Your task to perform on an android device: open app "Truecaller" (install if not already installed) and enter user name: "coauthor@gmail.com" and password: "quadrangle" Image 0: 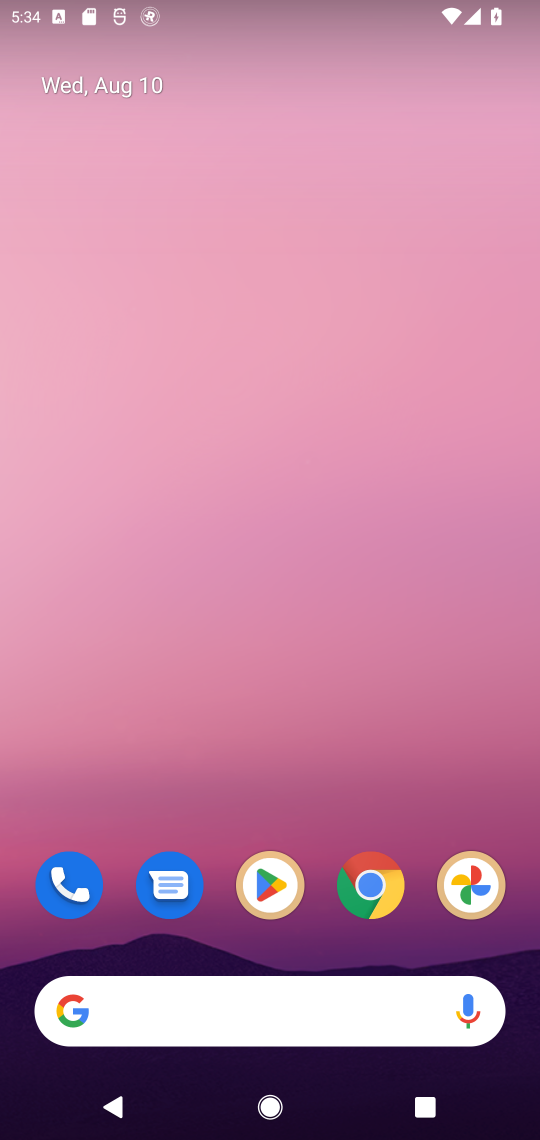
Step 0: click (247, 901)
Your task to perform on an android device: open app "Truecaller" (install if not already installed) and enter user name: "coauthor@gmail.com" and password: "quadrangle" Image 1: 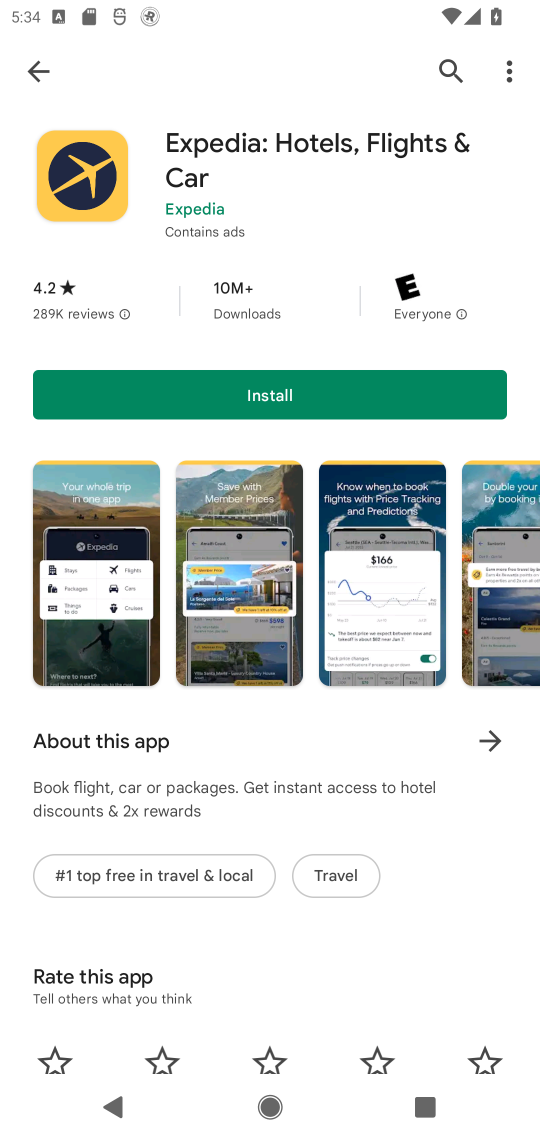
Step 1: click (441, 67)
Your task to perform on an android device: open app "Truecaller" (install if not already installed) and enter user name: "coauthor@gmail.com" and password: "quadrangle" Image 2: 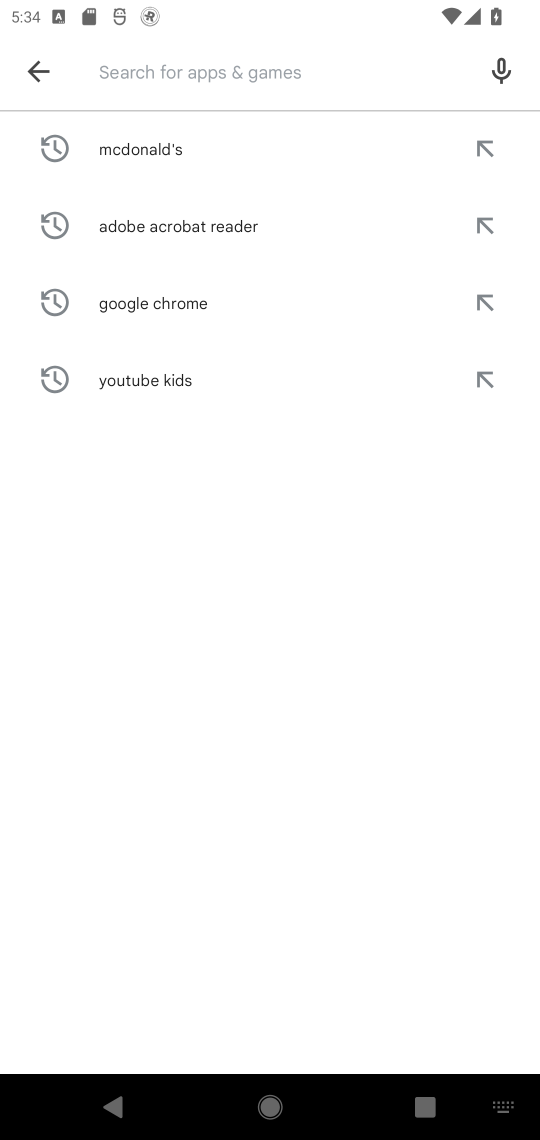
Step 2: click (190, 72)
Your task to perform on an android device: open app "Truecaller" (install if not already installed) and enter user name: "coauthor@gmail.com" and password: "quadrangle" Image 3: 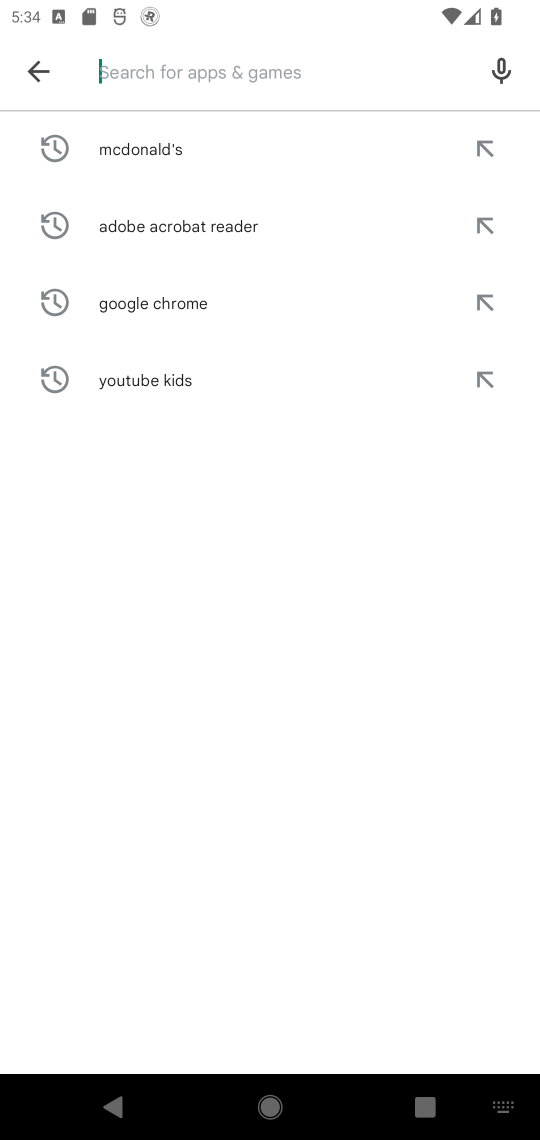
Step 3: type "Truecaller"
Your task to perform on an android device: open app "Truecaller" (install if not already installed) and enter user name: "coauthor@gmail.com" and password: "quadrangle" Image 4: 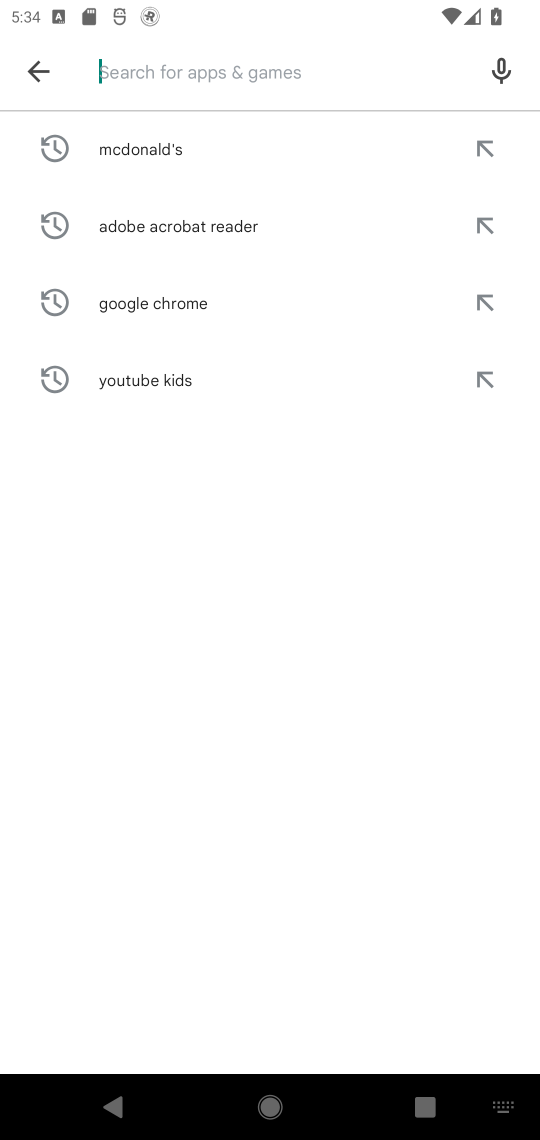
Step 4: click (306, 657)
Your task to perform on an android device: open app "Truecaller" (install if not already installed) and enter user name: "coauthor@gmail.com" and password: "quadrangle" Image 5: 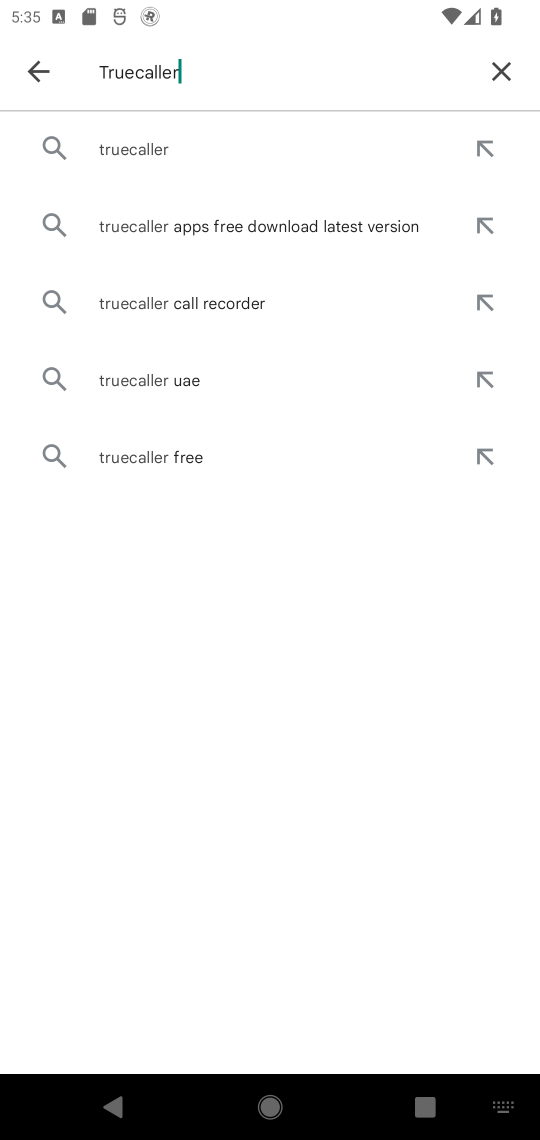
Step 5: click (176, 148)
Your task to perform on an android device: open app "Truecaller" (install if not already installed) and enter user name: "coauthor@gmail.com" and password: "quadrangle" Image 6: 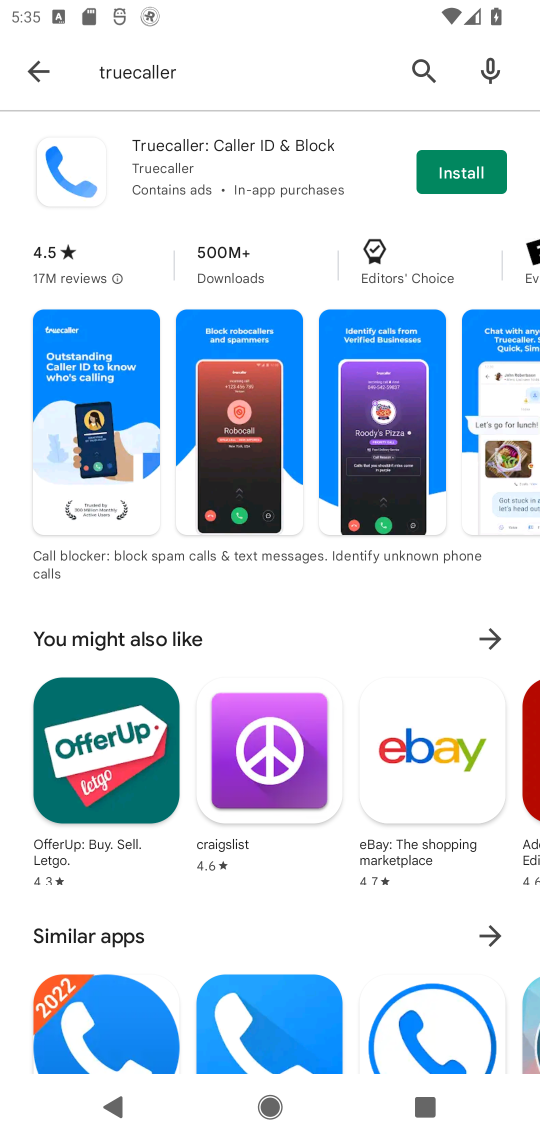
Step 6: click (471, 178)
Your task to perform on an android device: open app "Truecaller" (install if not already installed) and enter user name: "coauthor@gmail.com" and password: "quadrangle" Image 7: 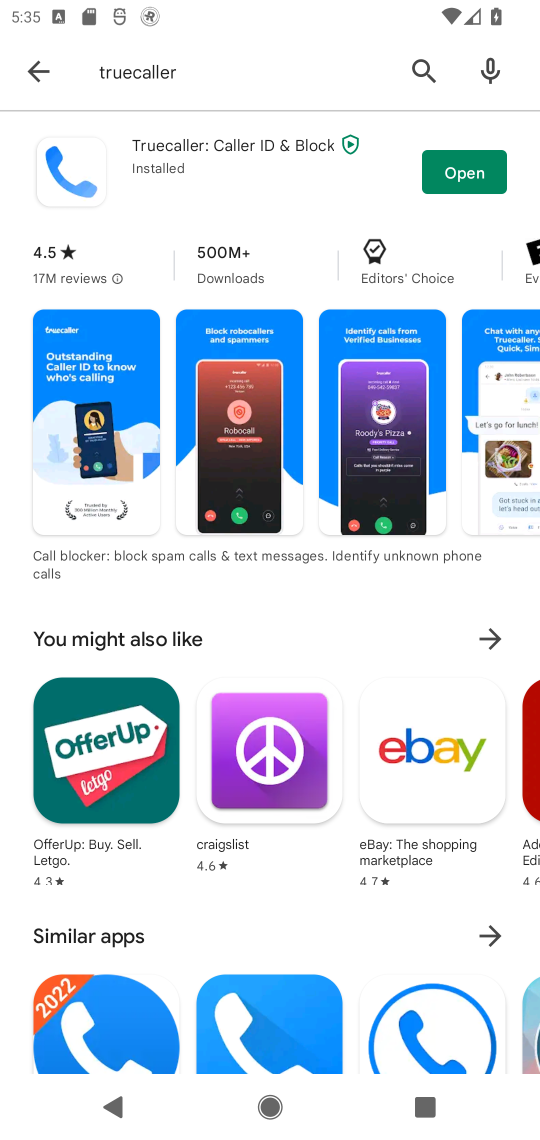
Step 7: click (458, 183)
Your task to perform on an android device: open app "Truecaller" (install if not already installed) and enter user name: "coauthor@gmail.com" and password: "quadrangle" Image 8: 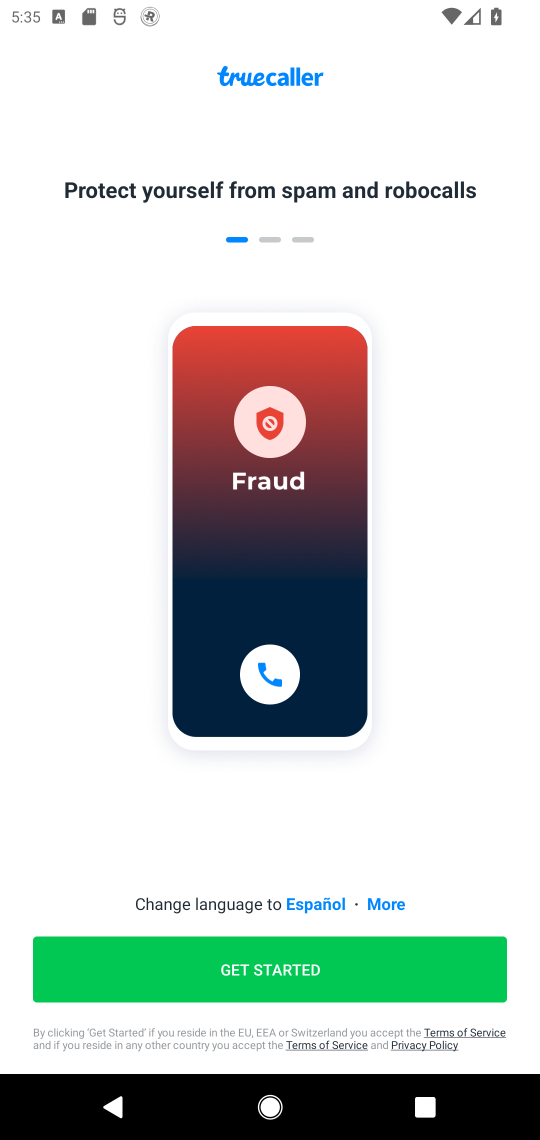
Step 8: click (313, 966)
Your task to perform on an android device: open app "Truecaller" (install if not already installed) and enter user name: "coauthor@gmail.com" and password: "quadrangle" Image 9: 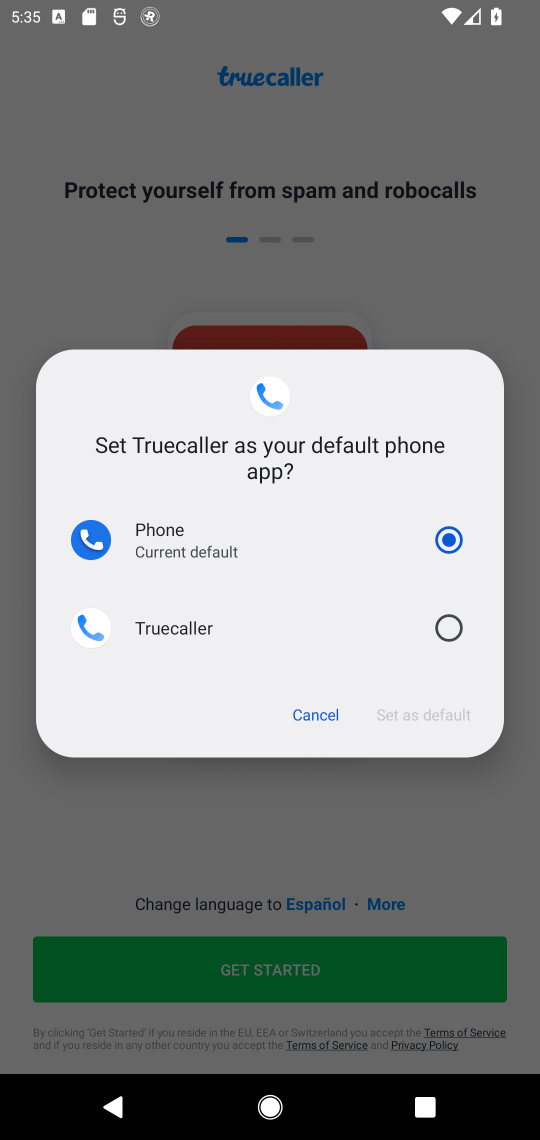
Step 9: click (313, 967)
Your task to perform on an android device: open app "Truecaller" (install if not already installed) and enter user name: "coauthor@gmail.com" and password: "quadrangle" Image 10: 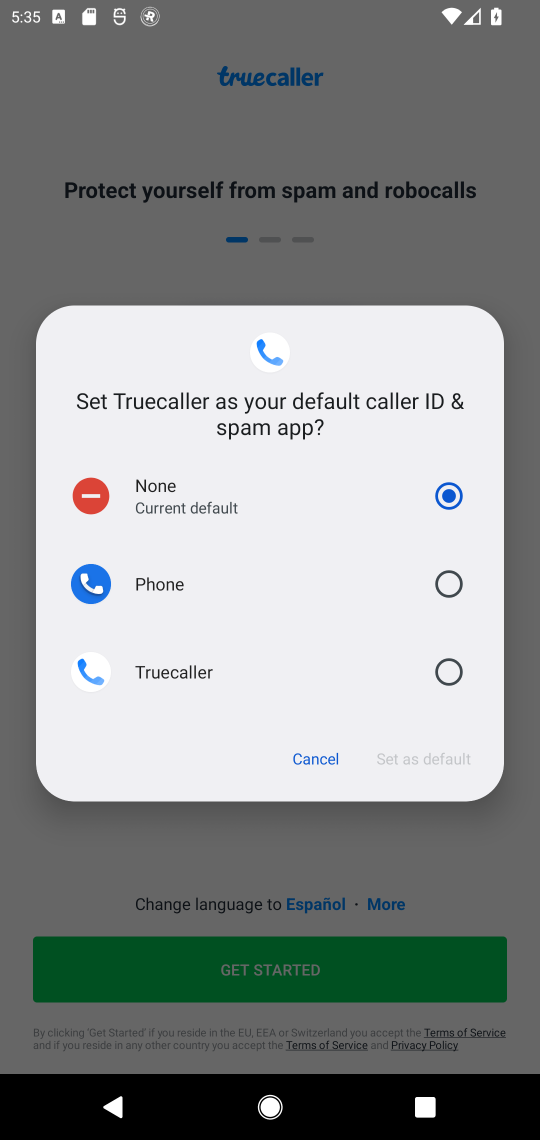
Step 10: click (467, 595)
Your task to perform on an android device: open app "Truecaller" (install if not already installed) and enter user name: "coauthor@gmail.com" and password: "quadrangle" Image 11: 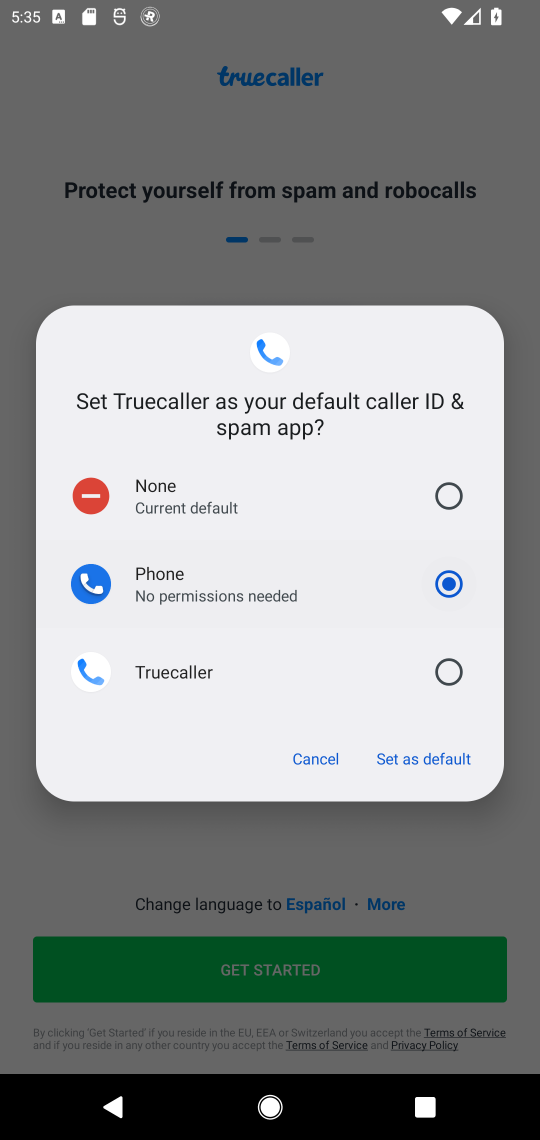
Step 11: click (442, 674)
Your task to perform on an android device: open app "Truecaller" (install if not already installed) and enter user name: "coauthor@gmail.com" and password: "quadrangle" Image 12: 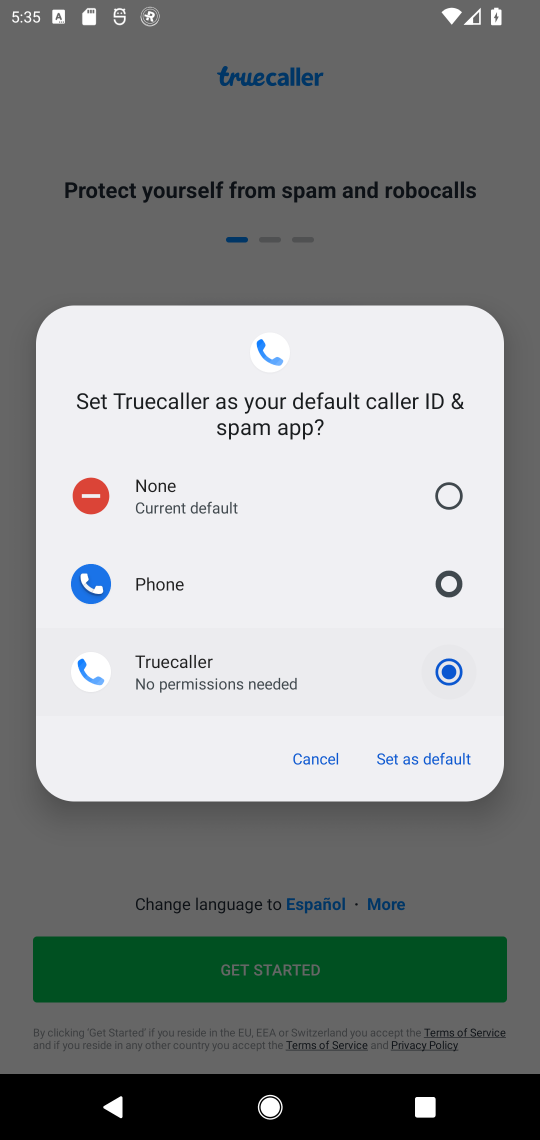
Step 12: click (421, 753)
Your task to perform on an android device: open app "Truecaller" (install if not already installed) and enter user name: "coauthor@gmail.com" and password: "quadrangle" Image 13: 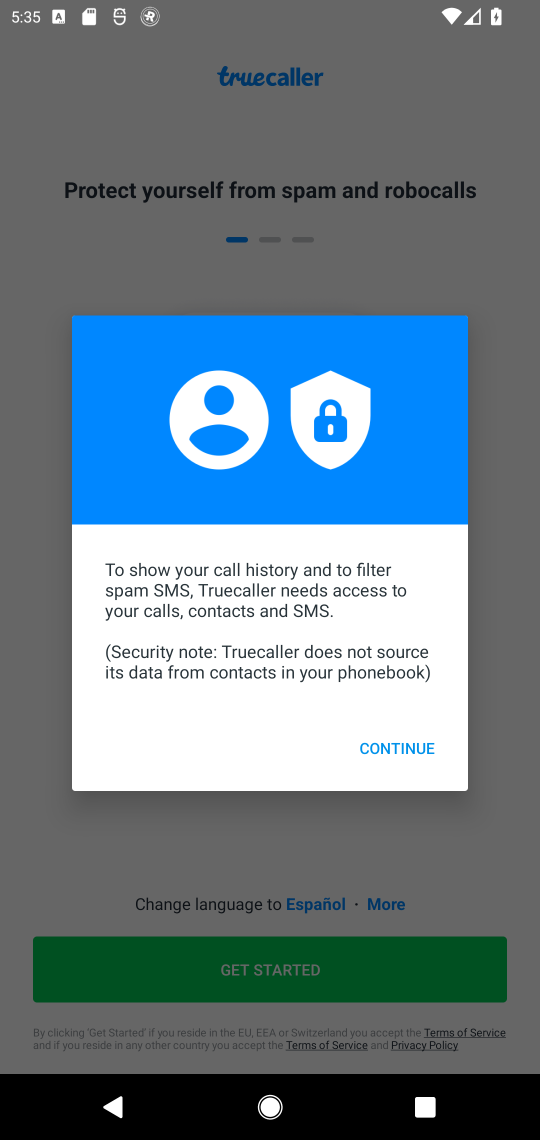
Step 13: click (428, 749)
Your task to perform on an android device: open app "Truecaller" (install if not already installed) and enter user name: "coauthor@gmail.com" and password: "quadrangle" Image 14: 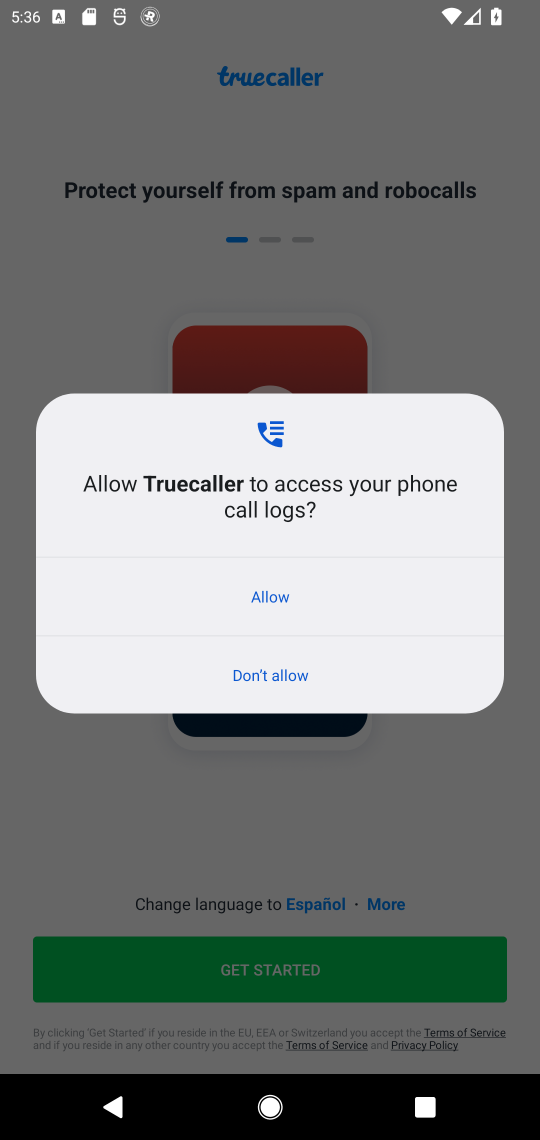
Step 14: click (269, 586)
Your task to perform on an android device: open app "Truecaller" (install if not already installed) and enter user name: "coauthor@gmail.com" and password: "quadrangle" Image 15: 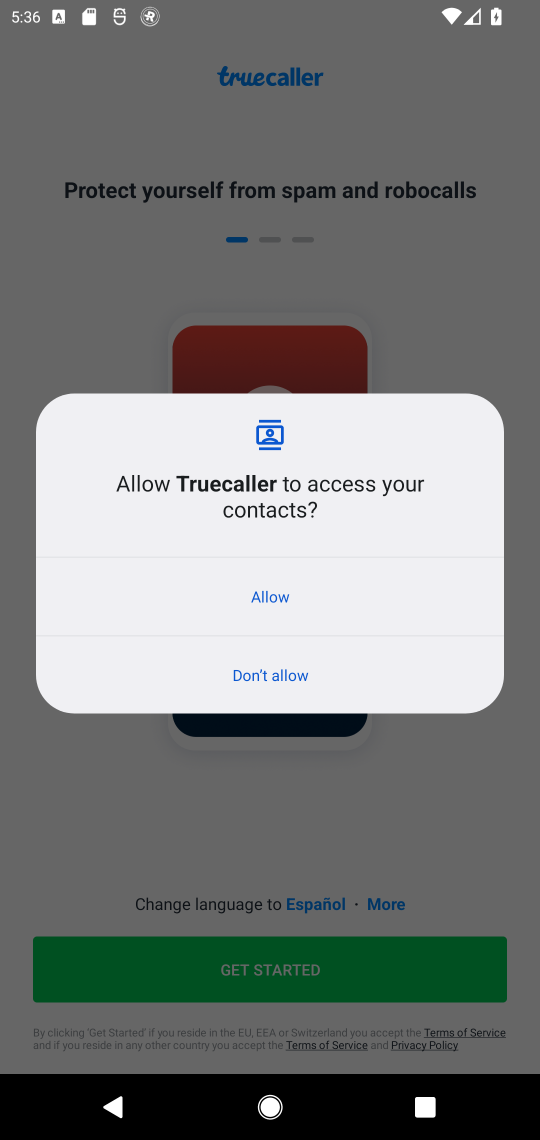
Step 15: click (275, 584)
Your task to perform on an android device: open app "Truecaller" (install if not already installed) and enter user name: "coauthor@gmail.com" and password: "quadrangle" Image 16: 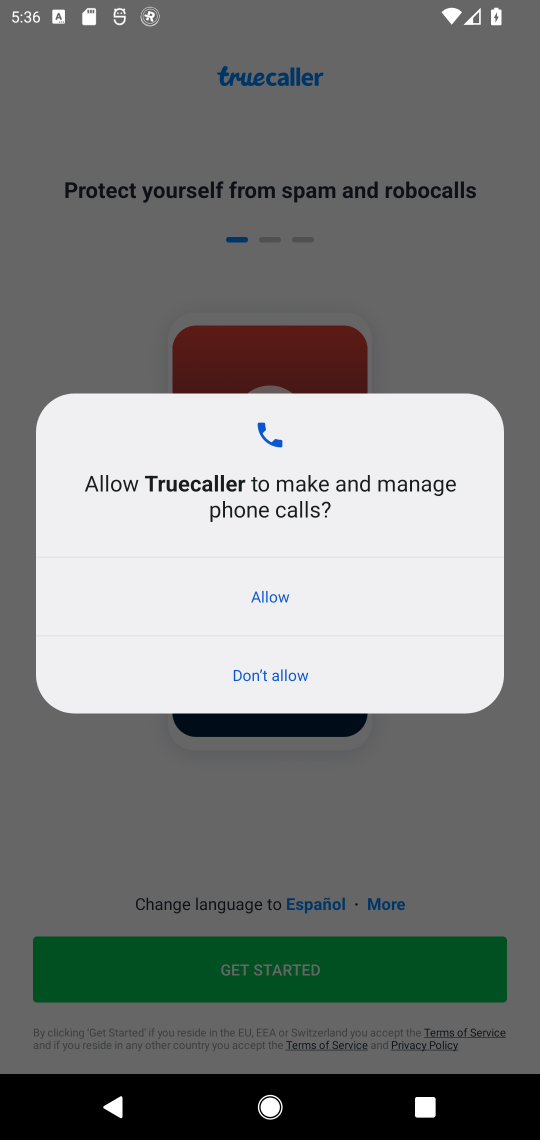
Step 16: click (275, 584)
Your task to perform on an android device: open app "Truecaller" (install if not already installed) and enter user name: "coauthor@gmail.com" and password: "quadrangle" Image 17: 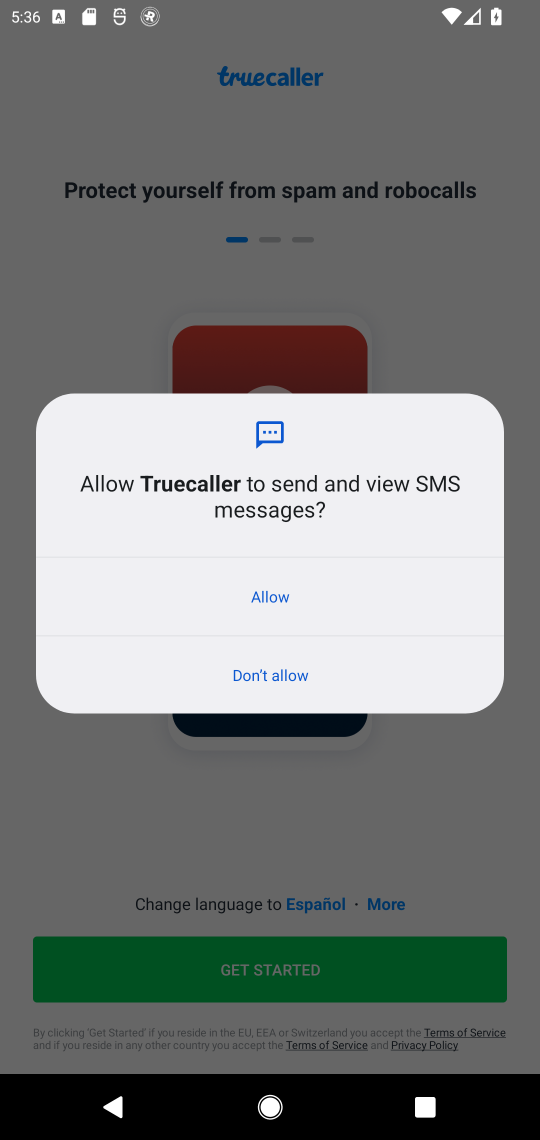
Step 17: click (275, 584)
Your task to perform on an android device: open app "Truecaller" (install if not already installed) and enter user name: "coauthor@gmail.com" and password: "quadrangle" Image 18: 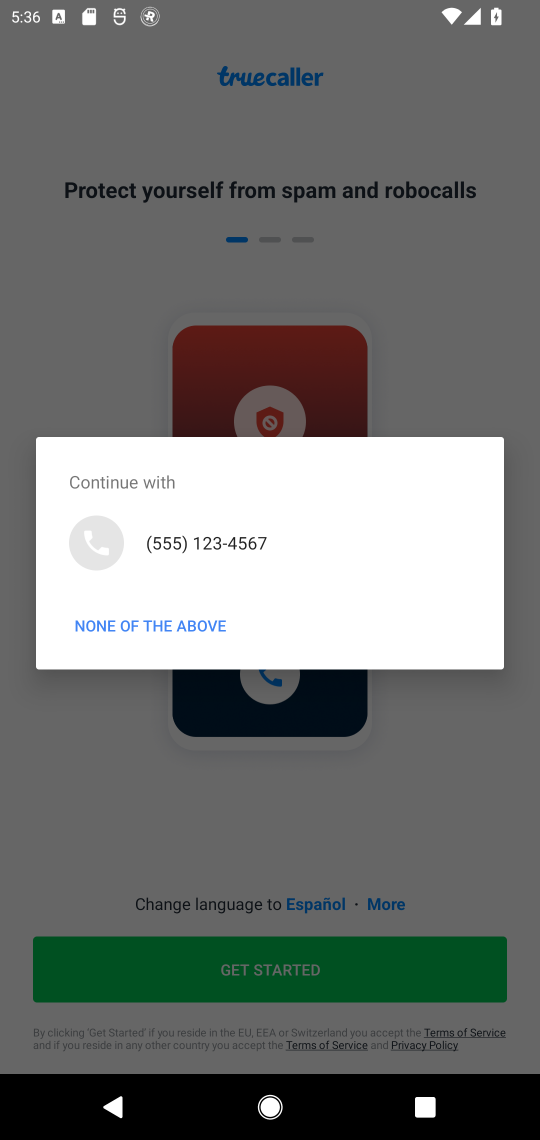
Step 18: click (160, 625)
Your task to perform on an android device: open app "Truecaller" (install if not already installed) and enter user name: "coauthor@gmail.com" and password: "quadrangle" Image 19: 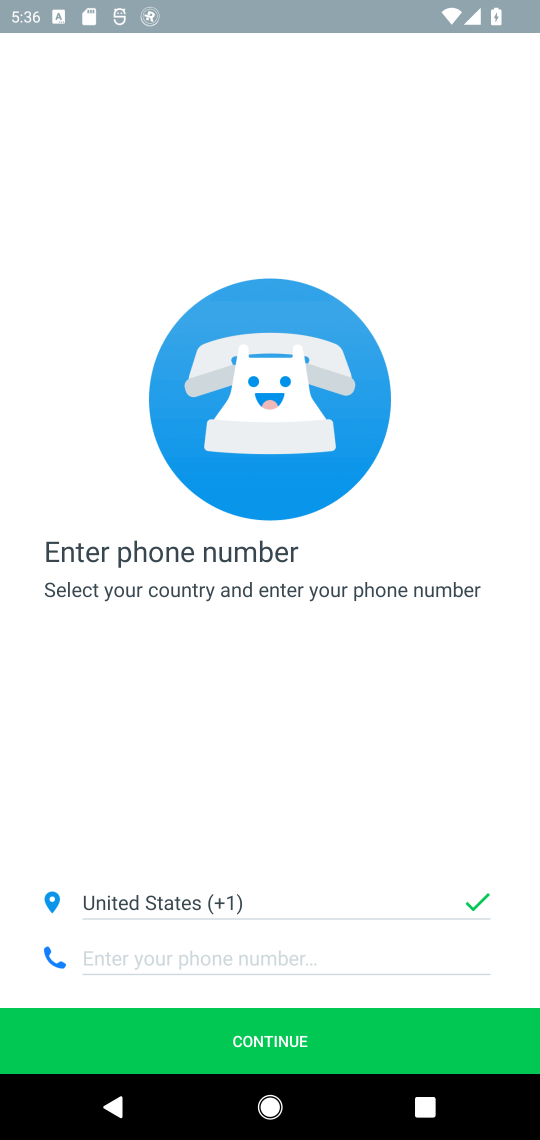
Step 19: drag from (247, 897) to (256, 179)
Your task to perform on an android device: open app "Truecaller" (install if not already installed) and enter user name: "coauthor@gmail.com" and password: "quadrangle" Image 20: 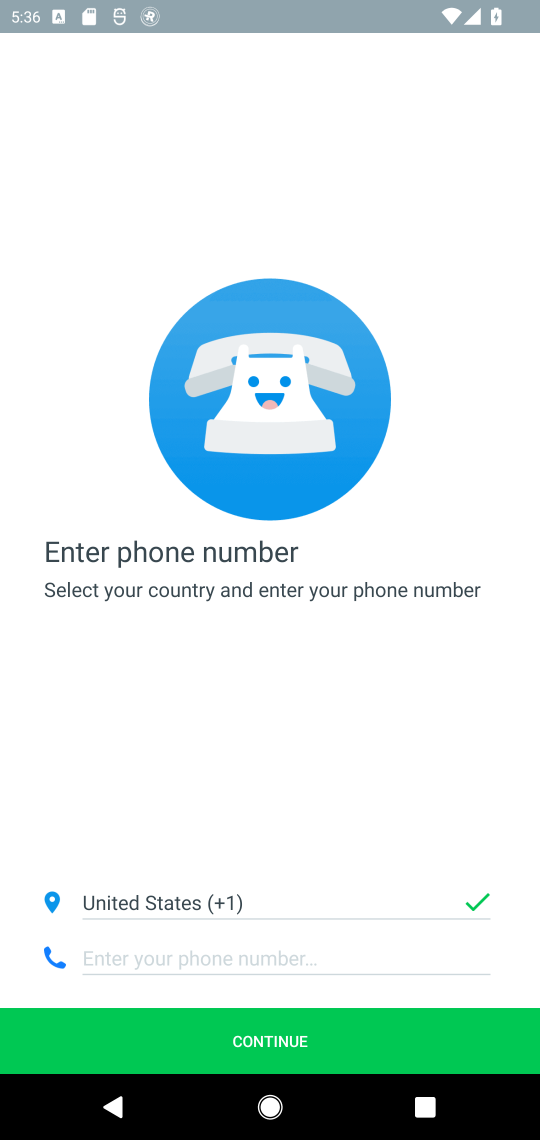
Step 20: click (247, 1045)
Your task to perform on an android device: open app "Truecaller" (install if not already installed) and enter user name: "coauthor@gmail.com" and password: "quadrangle" Image 21: 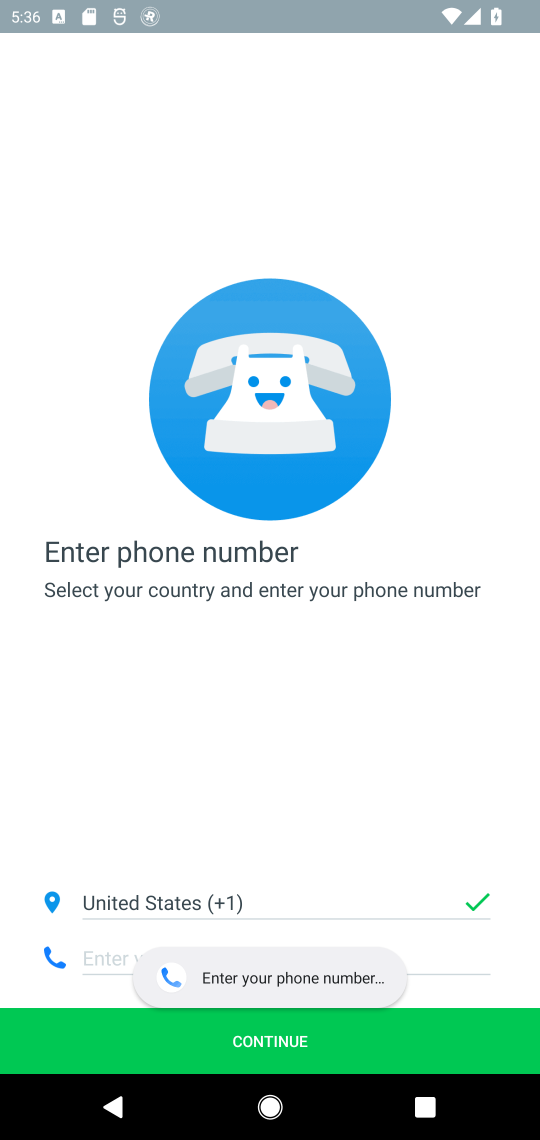
Step 21: press back button
Your task to perform on an android device: open app "Truecaller" (install if not already installed) and enter user name: "coauthor@gmail.com" and password: "quadrangle" Image 22: 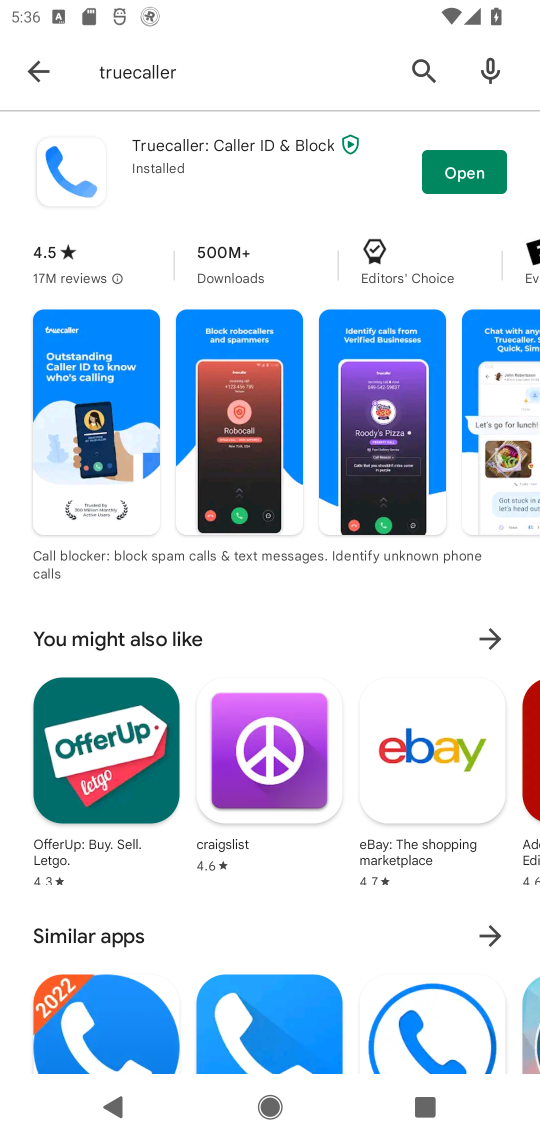
Step 22: click (447, 165)
Your task to perform on an android device: open app "Truecaller" (install if not already installed) and enter user name: "coauthor@gmail.com" and password: "quadrangle" Image 23: 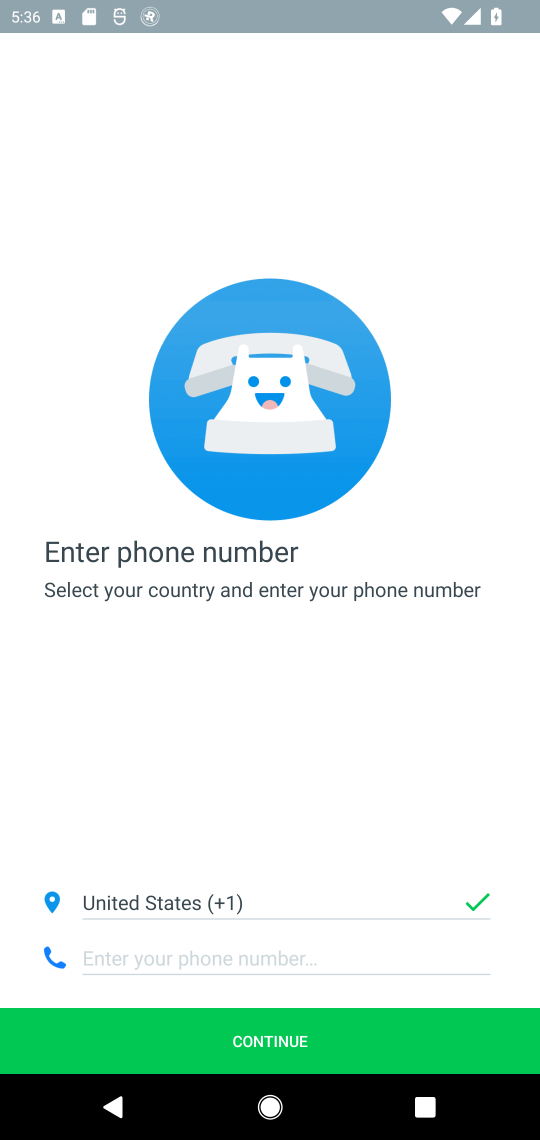
Step 23: click (221, 943)
Your task to perform on an android device: open app "Truecaller" (install if not already installed) and enter user name: "coauthor@gmail.com" and password: "quadrangle" Image 24: 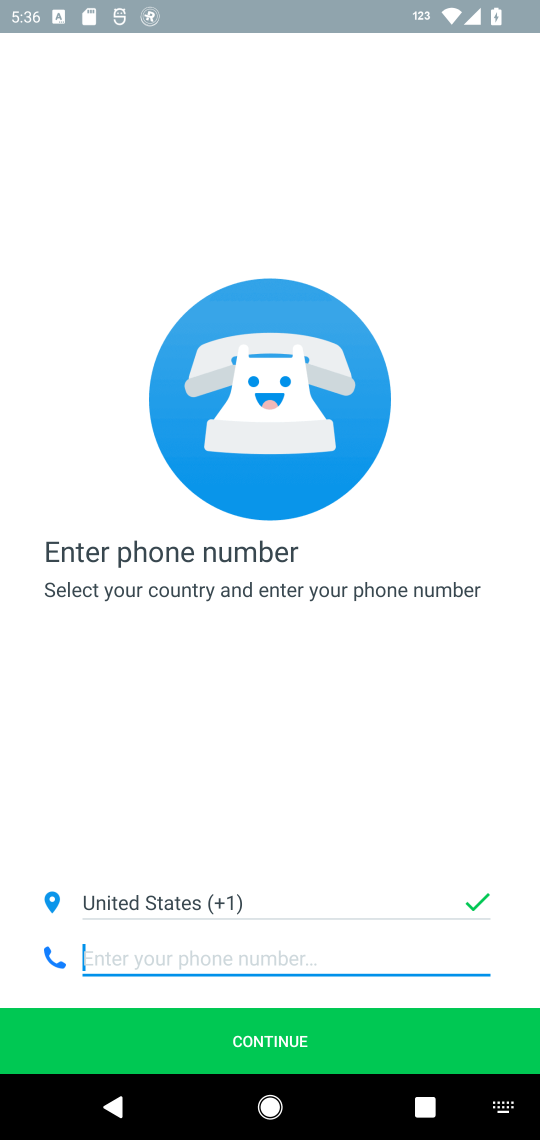
Step 24: click (234, 958)
Your task to perform on an android device: open app "Truecaller" (install if not already installed) and enter user name: "coauthor@gmail.com" and password: "quadrangle" Image 25: 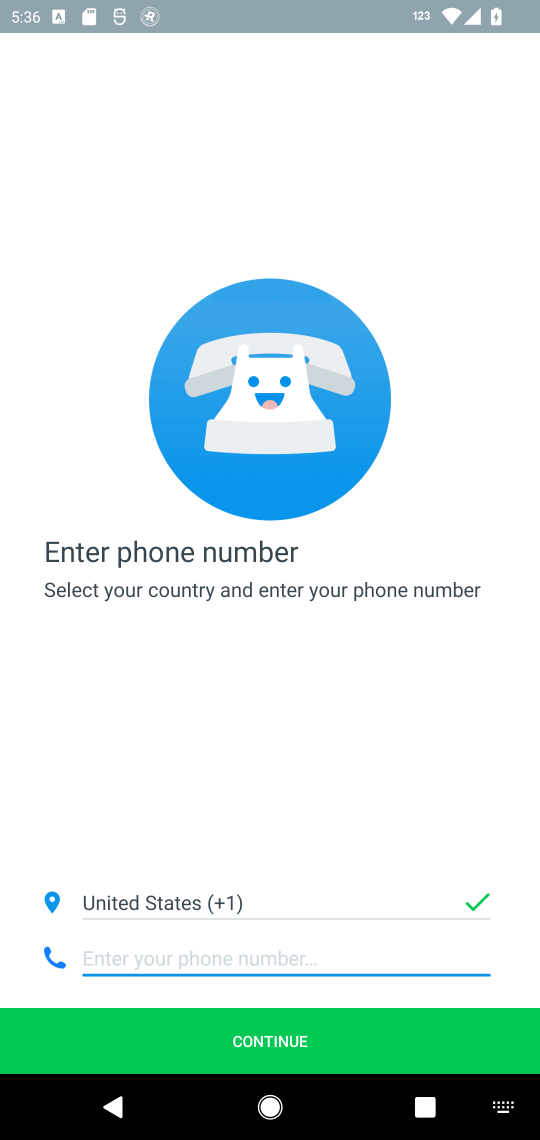
Step 25: task complete